Your task to perform on an android device: Open settings Image 0: 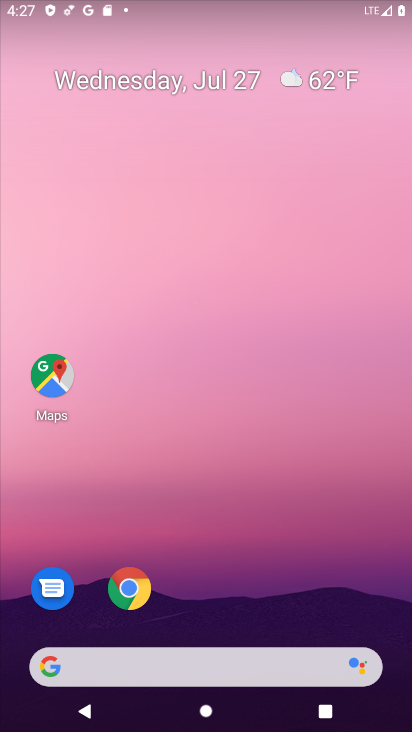
Step 0: drag from (183, 410) to (201, 87)
Your task to perform on an android device: Open settings Image 1: 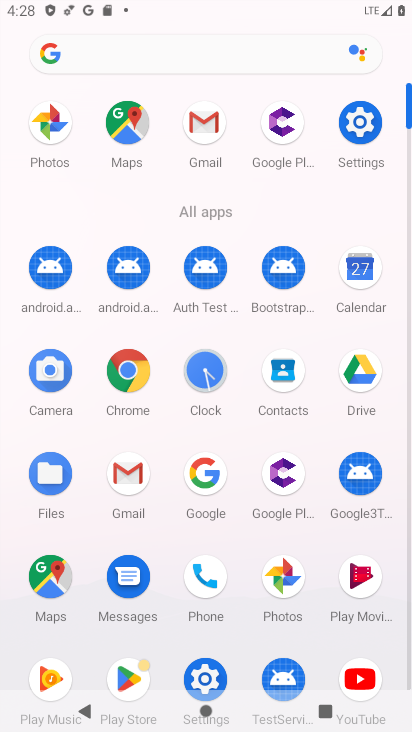
Step 1: click (356, 120)
Your task to perform on an android device: Open settings Image 2: 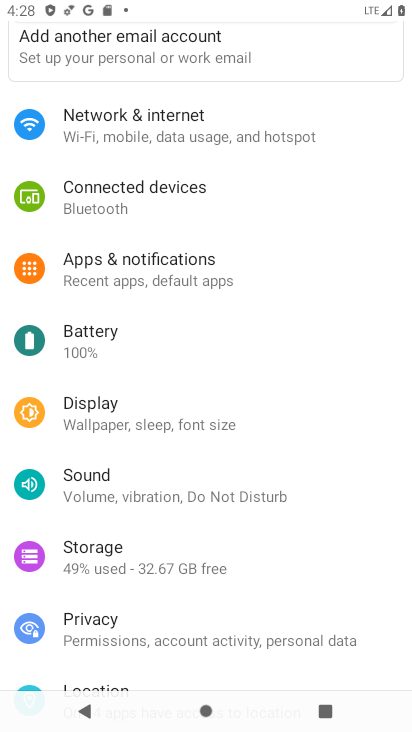
Step 2: task complete